Your task to perform on an android device: Open battery settings Image 0: 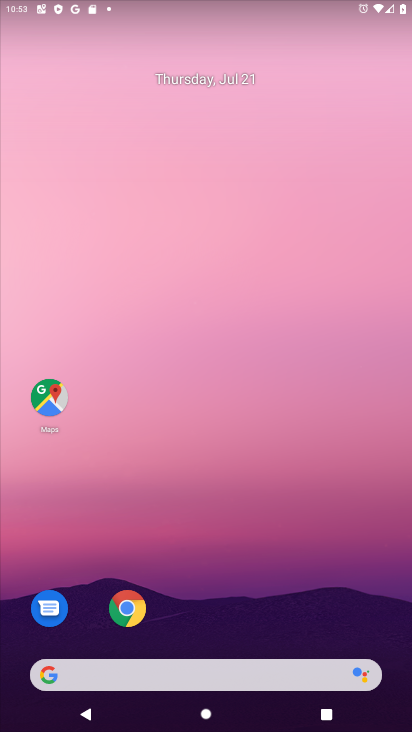
Step 0: drag from (316, 611) to (82, 27)
Your task to perform on an android device: Open battery settings Image 1: 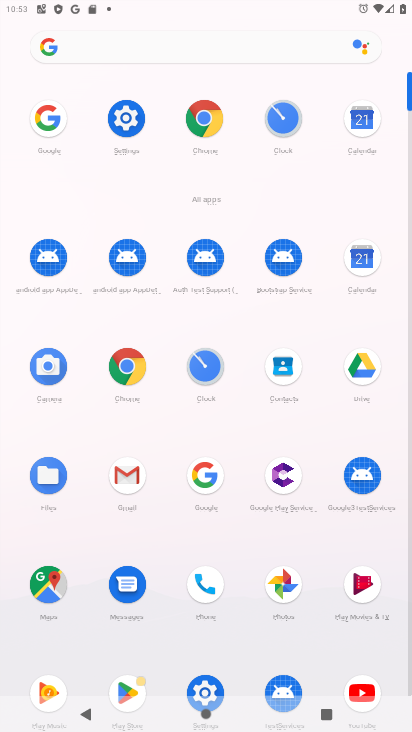
Step 1: click (201, 685)
Your task to perform on an android device: Open battery settings Image 2: 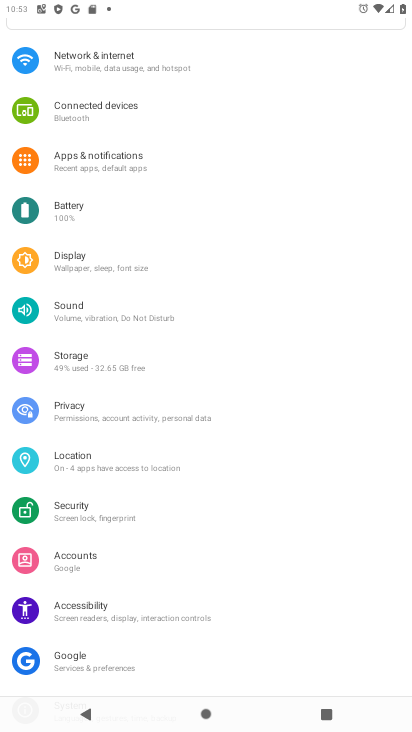
Step 2: click (111, 207)
Your task to perform on an android device: Open battery settings Image 3: 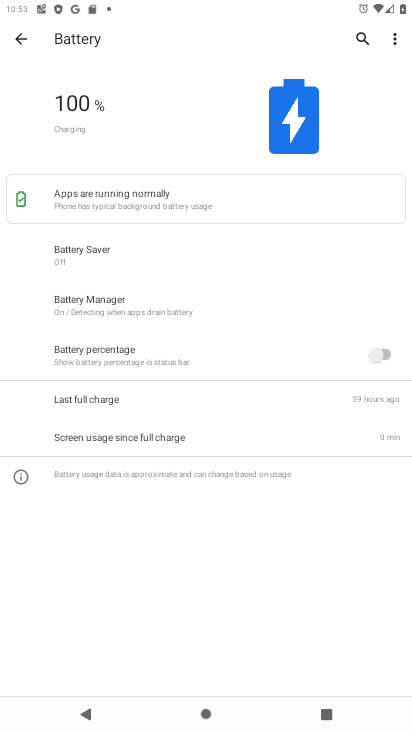
Step 3: task complete